Your task to perform on an android device: Open wifi settings Image 0: 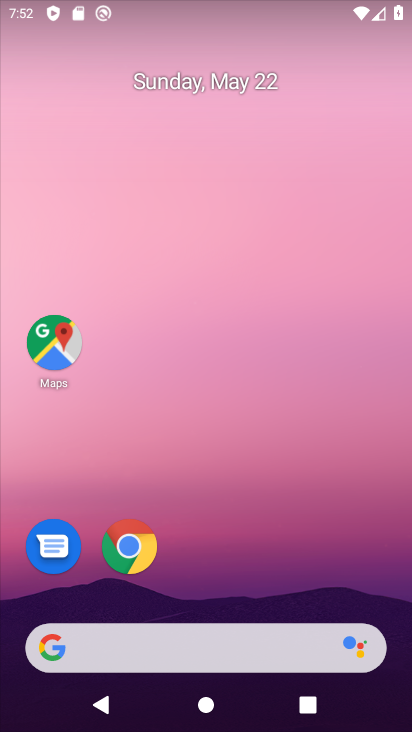
Step 0: press home button
Your task to perform on an android device: Open wifi settings Image 1: 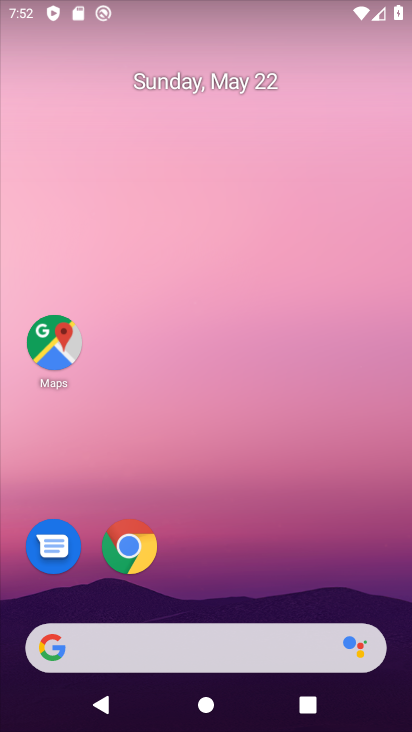
Step 1: drag from (211, 649) to (263, 102)
Your task to perform on an android device: Open wifi settings Image 2: 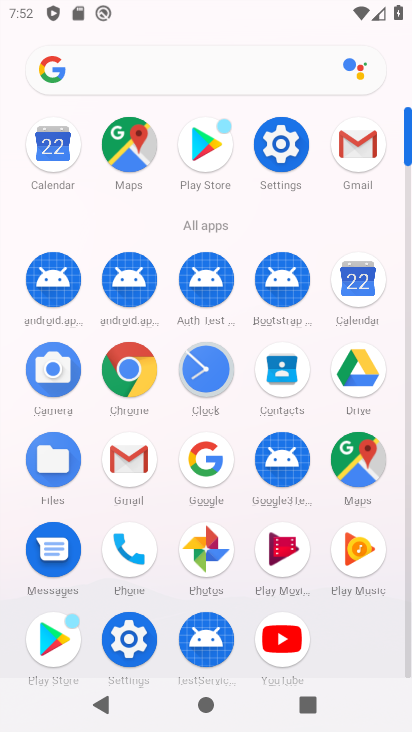
Step 2: click (278, 149)
Your task to perform on an android device: Open wifi settings Image 3: 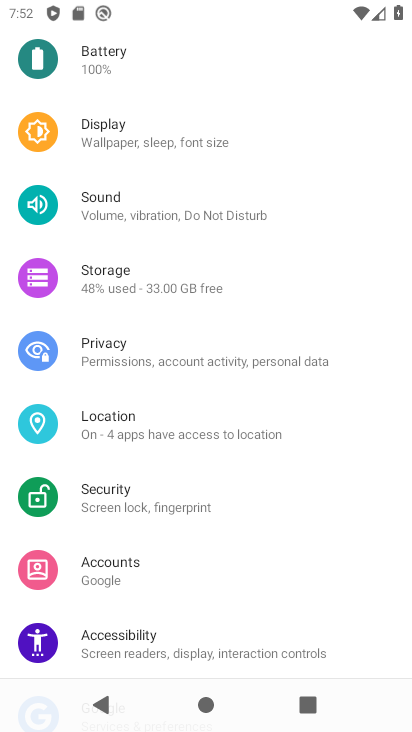
Step 3: drag from (325, 281) to (294, 479)
Your task to perform on an android device: Open wifi settings Image 4: 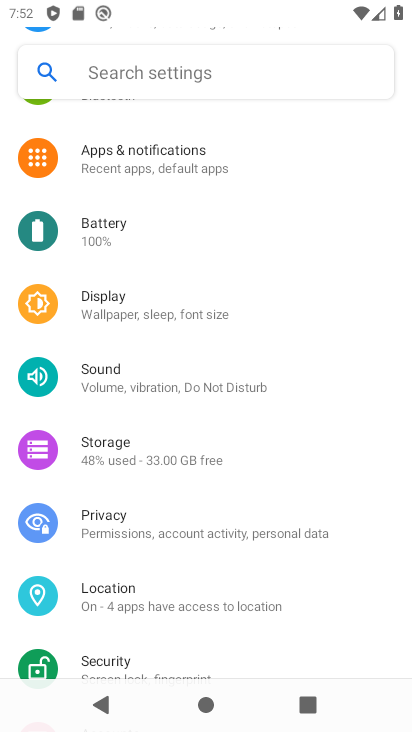
Step 4: drag from (271, 138) to (258, 515)
Your task to perform on an android device: Open wifi settings Image 5: 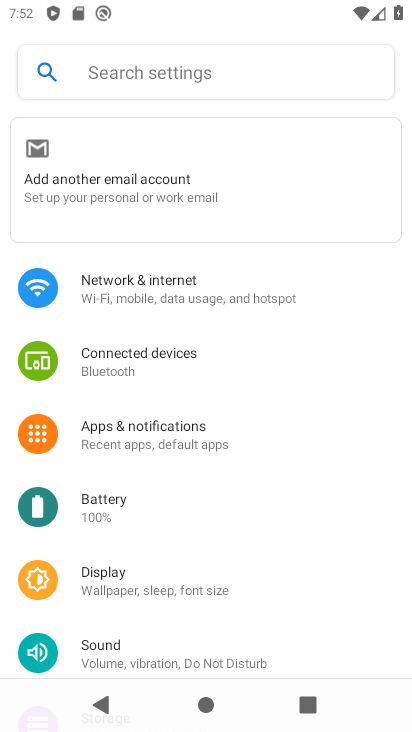
Step 5: click (178, 302)
Your task to perform on an android device: Open wifi settings Image 6: 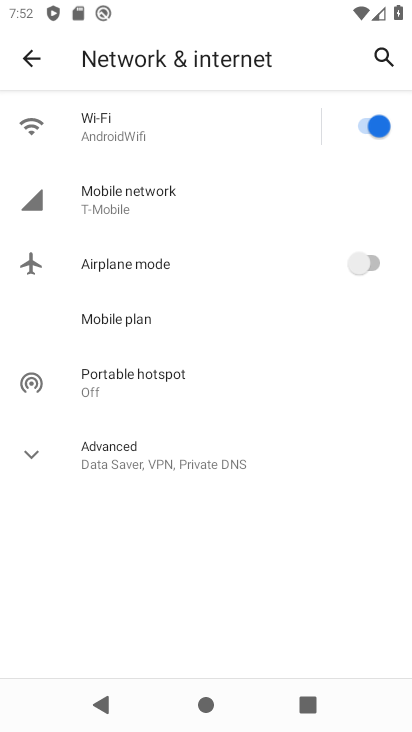
Step 6: click (118, 131)
Your task to perform on an android device: Open wifi settings Image 7: 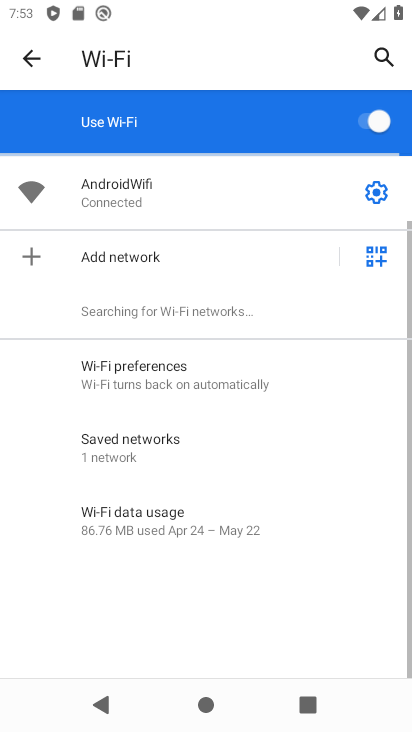
Step 7: task complete